Your task to perform on an android device: Open Chrome and go to the settings page Image 0: 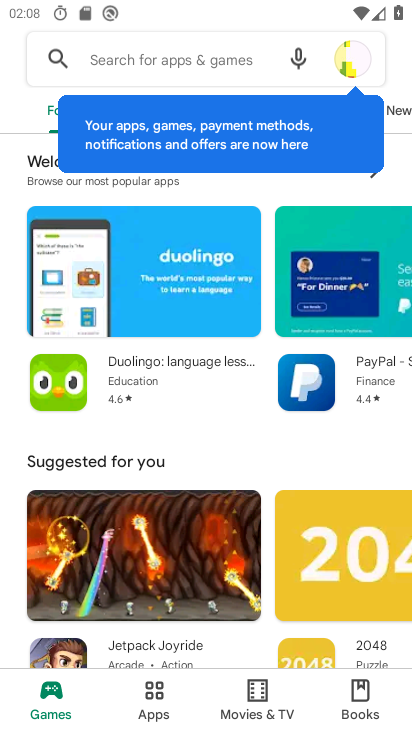
Step 0: press home button
Your task to perform on an android device: Open Chrome and go to the settings page Image 1: 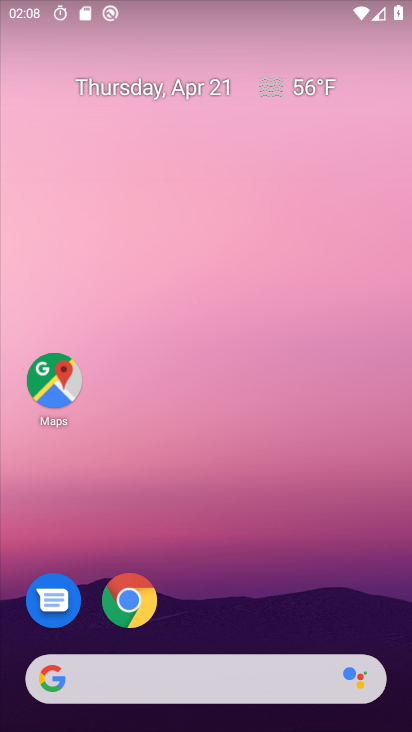
Step 1: click (126, 597)
Your task to perform on an android device: Open Chrome and go to the settings page Image 2: 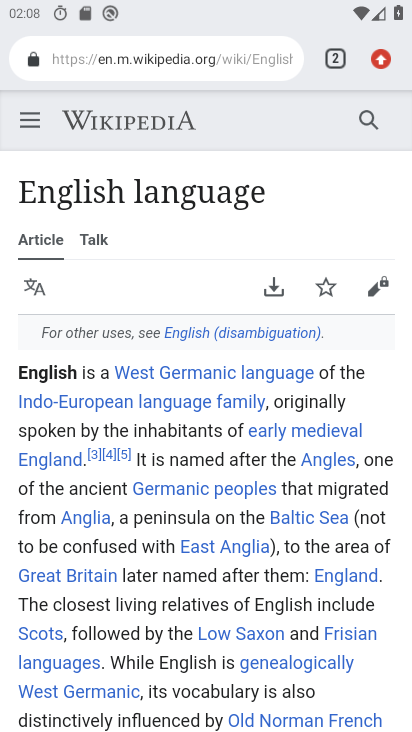
Step 2: click (377, 58)
Your task to perform on an android device: Open Chrome and go to the settings page Image 3: 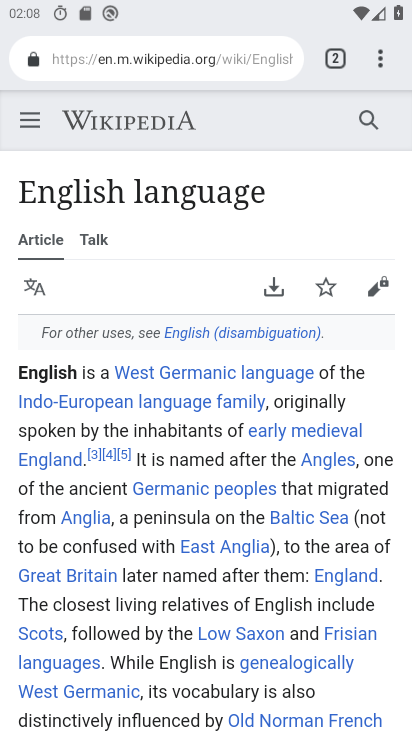
Step 3: click (377, 58)
Your task to perform on an android device: Open Chrome and go to the settings page Image 4: 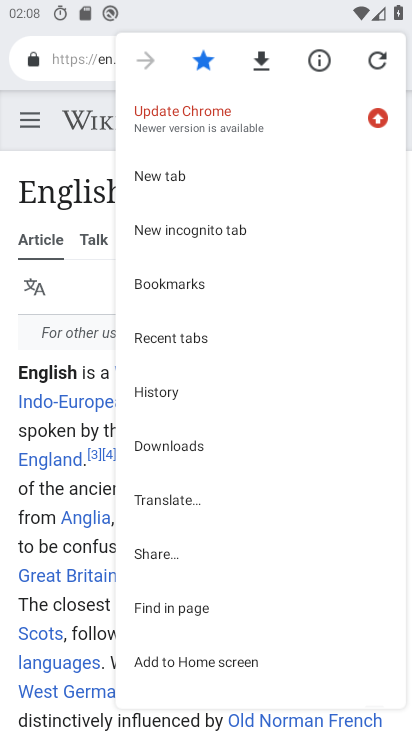
Step 4: drag from (270, 596) to (274, 238)
Your task to perform on an android device: Open Chrome and go to the settings page Image 5: 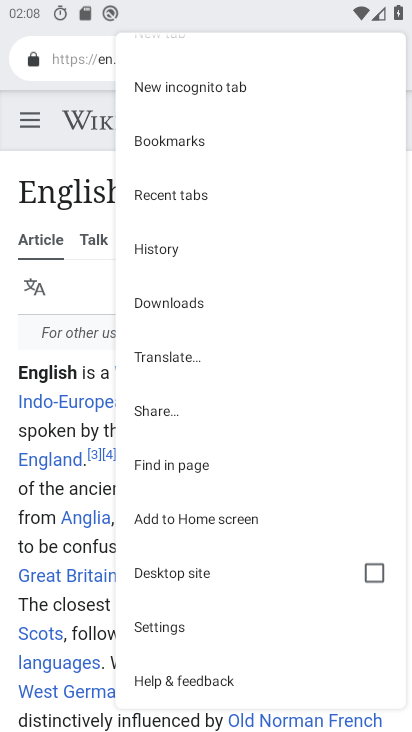
Step 5: click (173, 627)
Your task to perform on an android device: Open Chrome and go to the settings page Image 6: 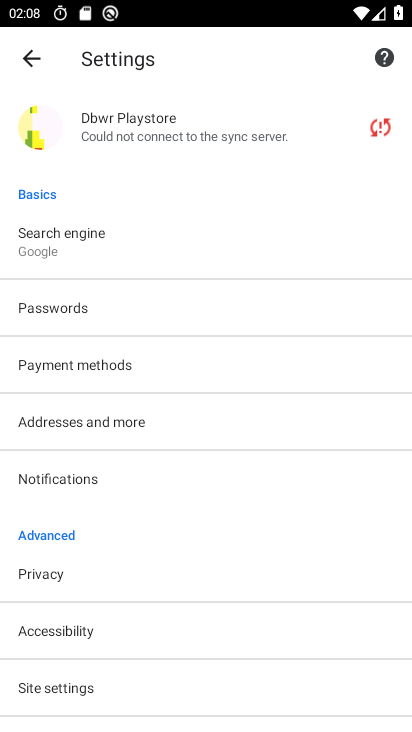
Step 6: task complete